Your task to perform on an android device: toggle notifications settings in the gmail app Image 0: 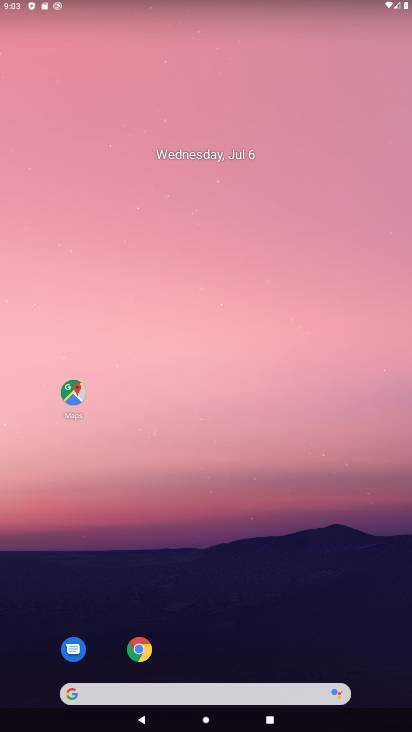
Step 0: click (158, 84)
Your task to perform on an android device: toggle notifications settings in the gmail app Image 1: 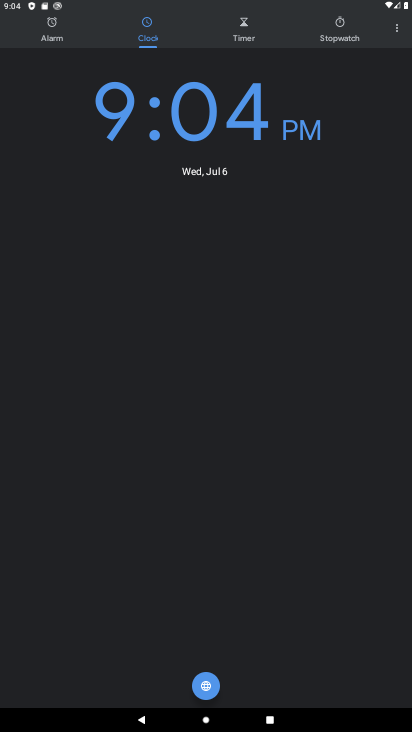
Step 1: press home button
Your task to perform on an android device: toggle notifications settings in the gmail app Image 2: 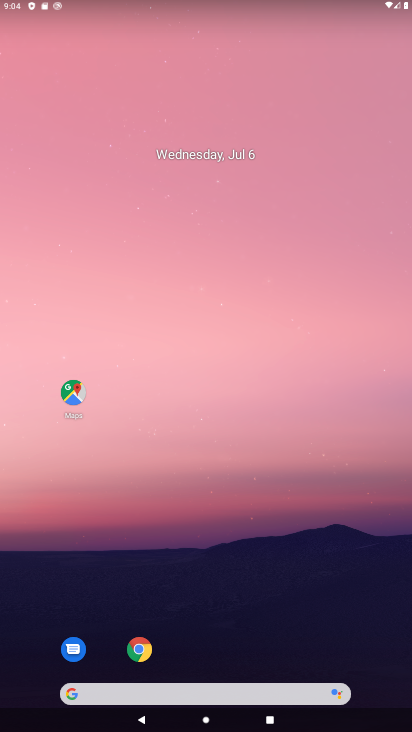
Step 2: drag from (206, 645) to (233, 257)
Your task to perform on an android device: toggle notifications settings in the gmail app Image 3: 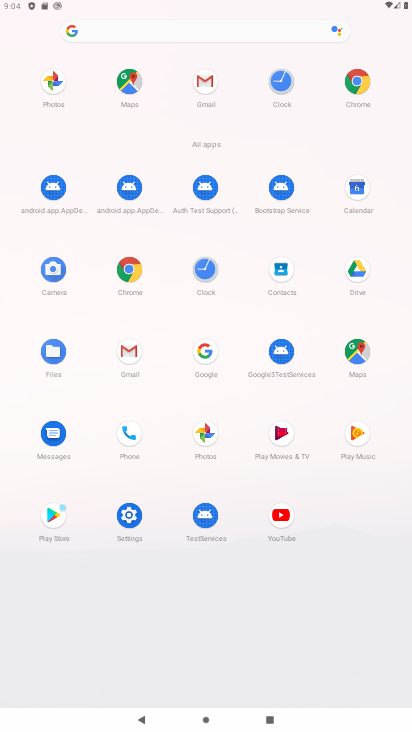
Step 3: click (127, 354)
Your task to perform on an android device: toggle notifications settings in the gmail app Image 4: 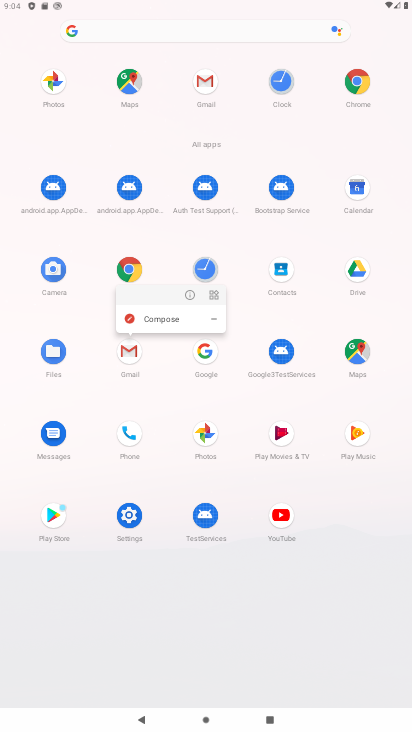
Step 4: click (186, 297)
Your task to perform on an android device: toggle notifications settings in the gmail app Image 5: 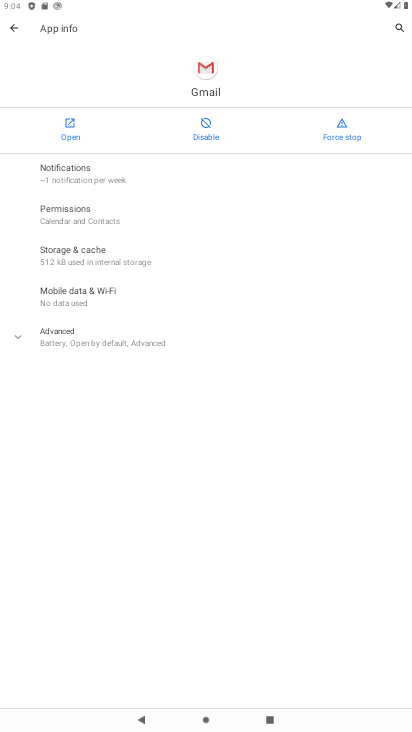
Step 5: click (63, 122)
Your task to perform on an android device: toggle notifications settings in the gmail app Image 6: 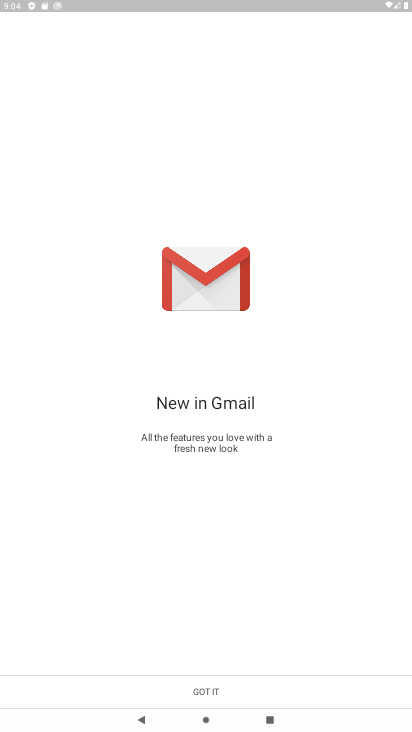
Step 6: click (179, 687)
Your task to perform on an android device: toggle notifications settings in the gmail app Image 7: 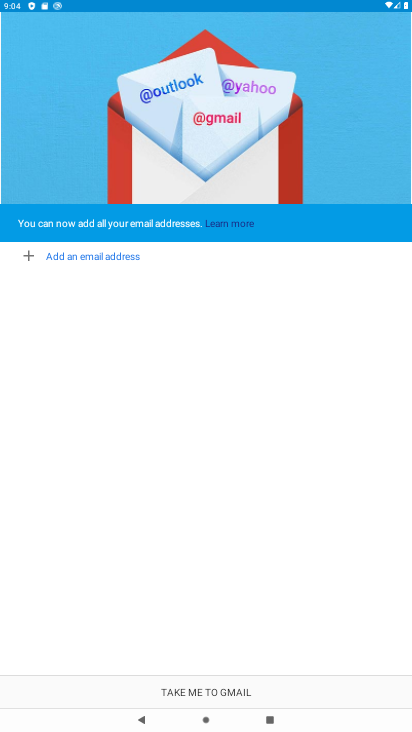
Step 7: click (198, 690)
Your task to perform on an android device: toggle notifications settings in the gmail app Image 8: 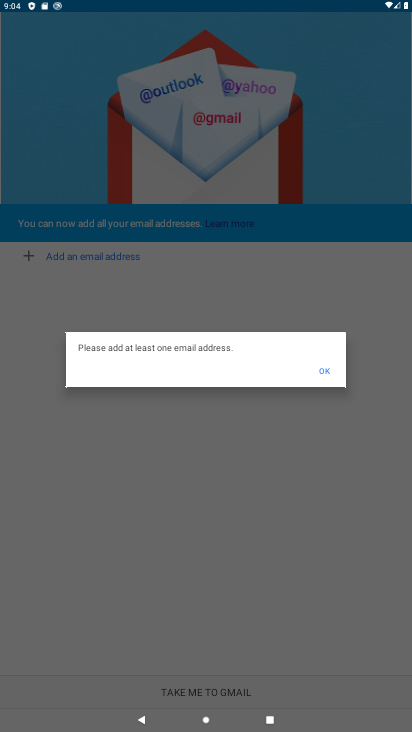
Step 8: click (325, 379)
Your task to perform on an android device: toggle notifications settings in the gmail app Image 9: 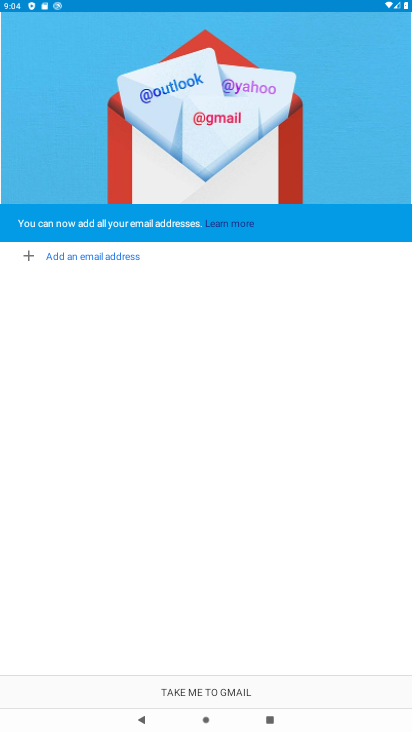
Step 9: click (219, 693)
Your task to perform on an android device: toggle notifications settings in the gmail app Image 10: 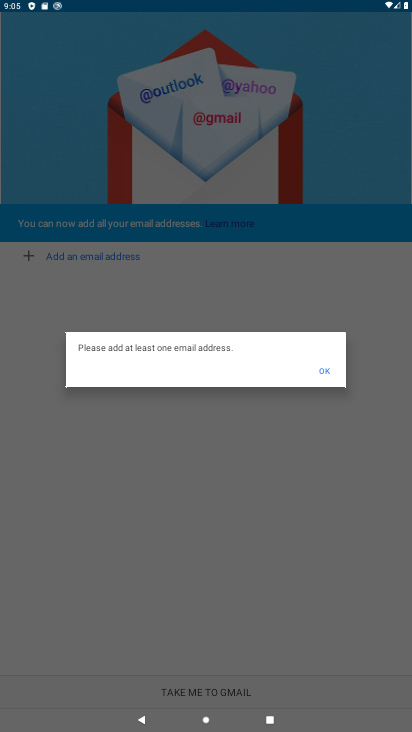
Step 10: click (331, 368)
Your task to perform on an android device: toggle notifications settings in the gmail app Image 11: 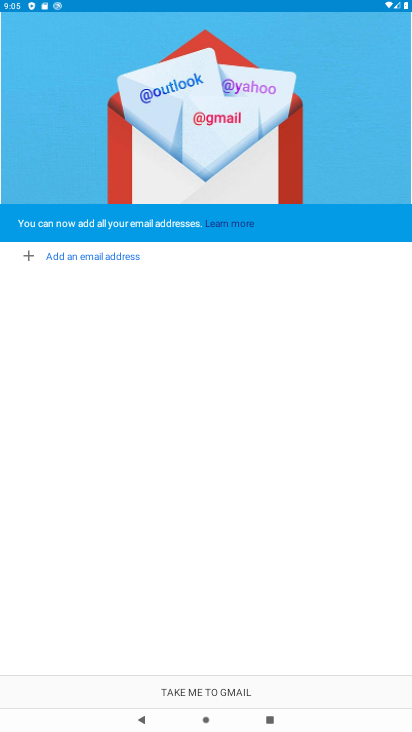
Step 11: task complete